Your task to perform on an android device: open a bookmark in the chrome app Image 0: 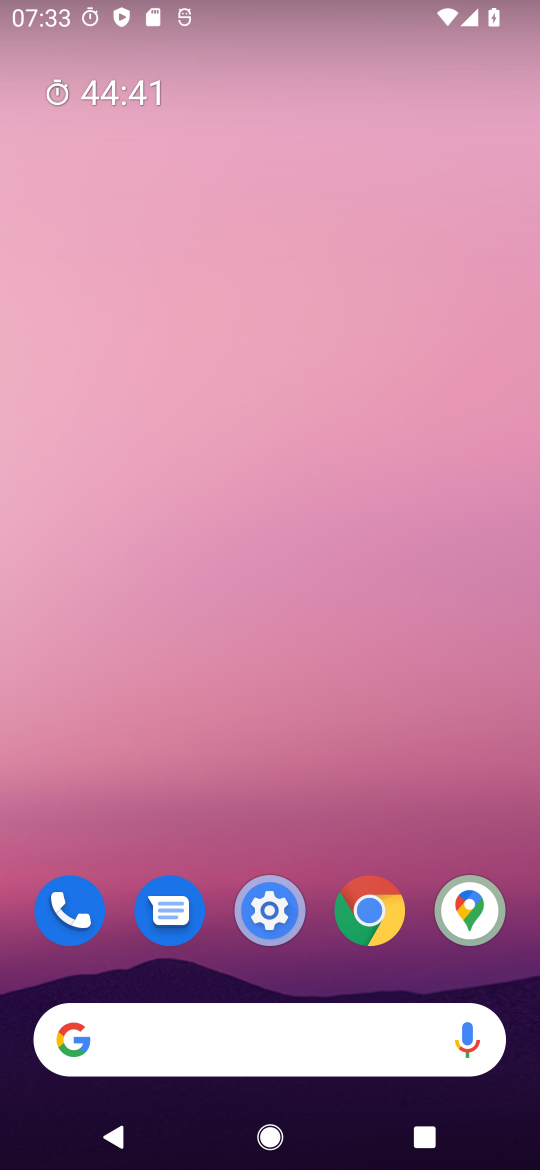
Step 0: drag from (275, 999) to (301, 382)
Your task to perform on an android device: open a bookmark in the chrome app Image 1: 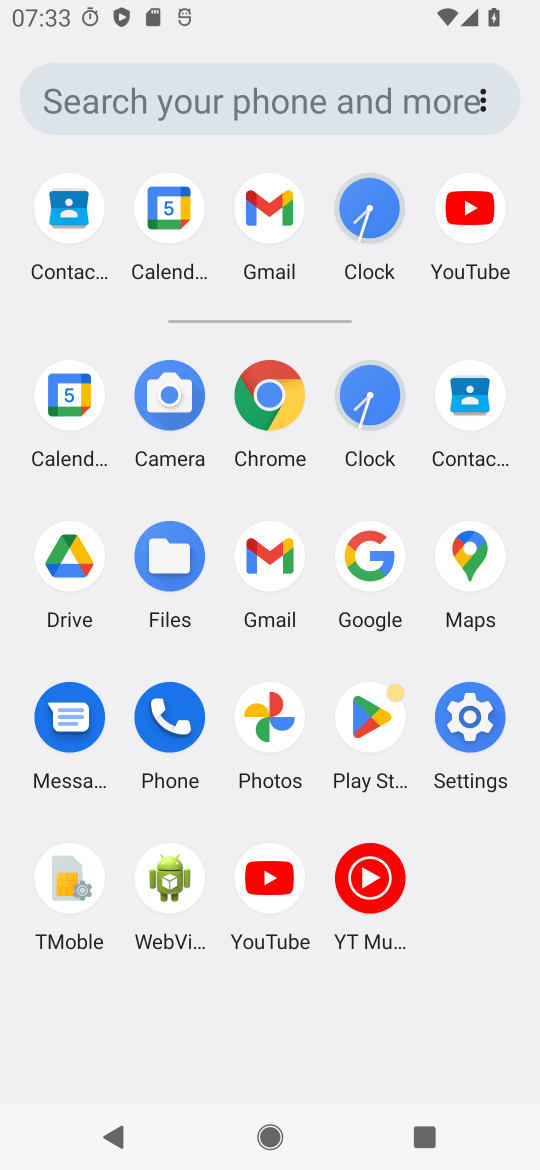
Step 1: click (261, 400)
Your task to perform on an android device: open a bookmark in the chrome app Image 2: 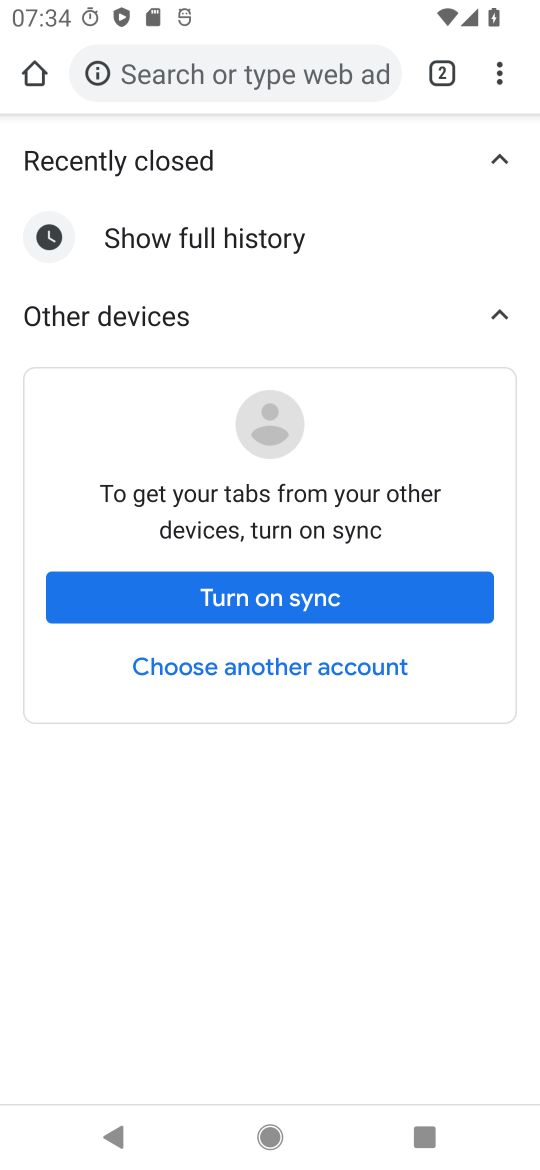
Step 2: click (497, 75)
Your task to perform on an android device: open a bookmark in the chrome app Image 3: 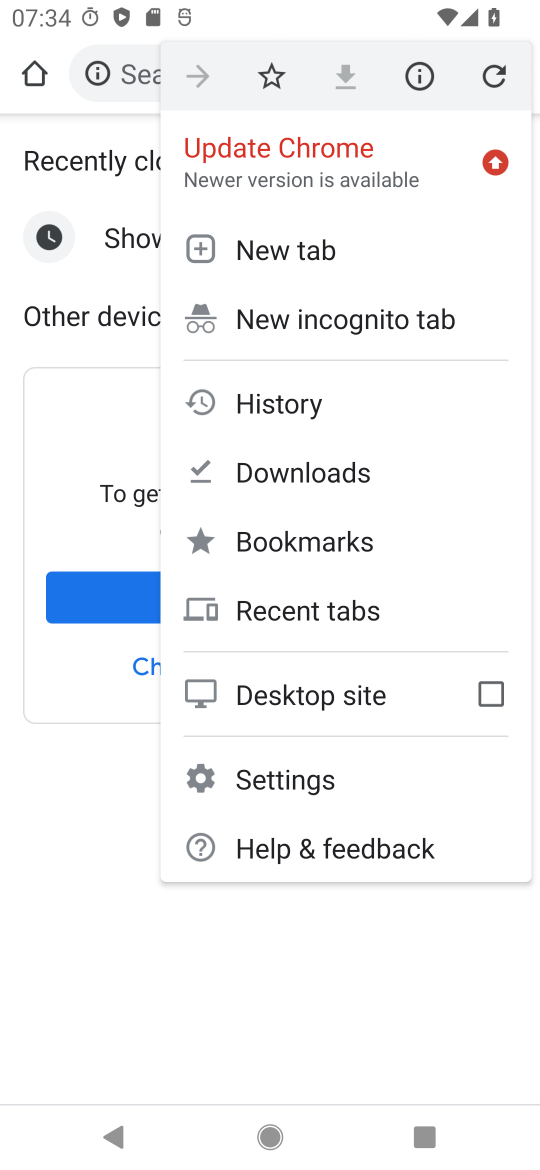
Step 3: click (341, 547)
Your task to perform on an android device: open a bookmark in the chrome app Image 4: 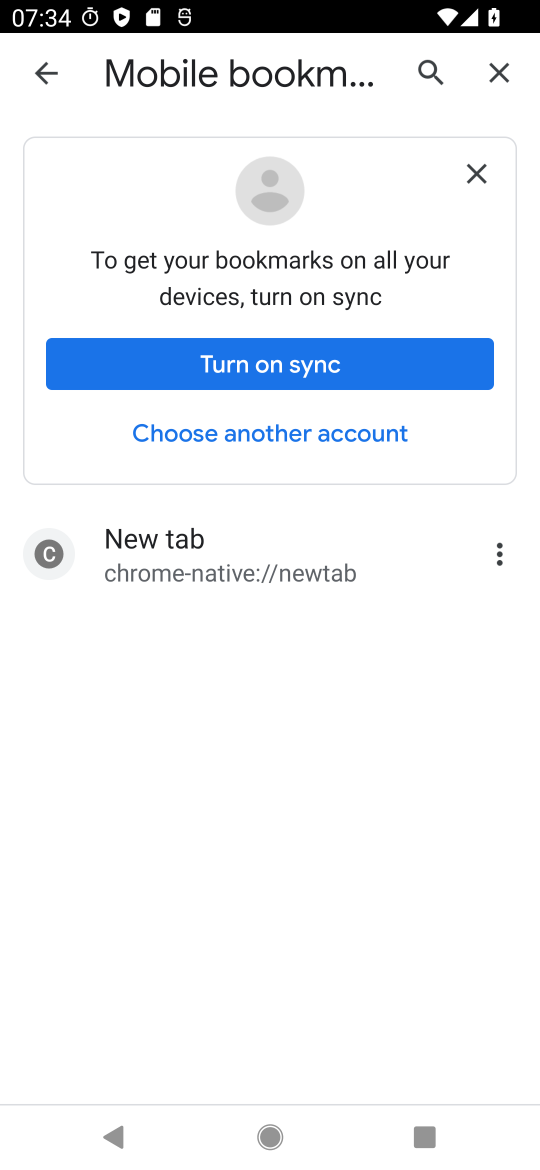
Step 4: task complete